Your task to perform on an android device: turn on improve location accuracy Image 0: 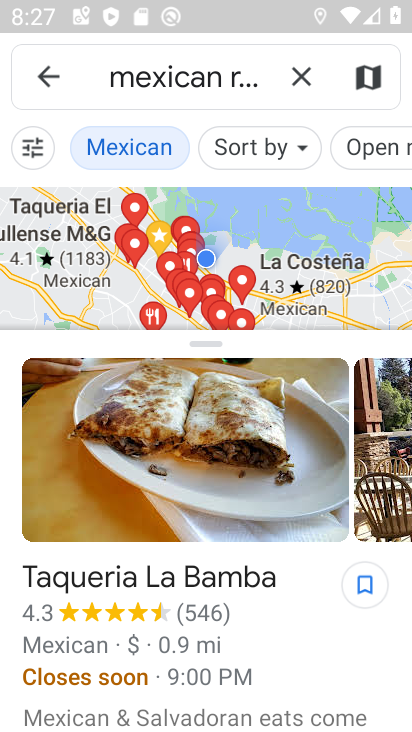
Step 0: press home button
Your task to perform on an android device: turn on improve location accuracy Image 1: 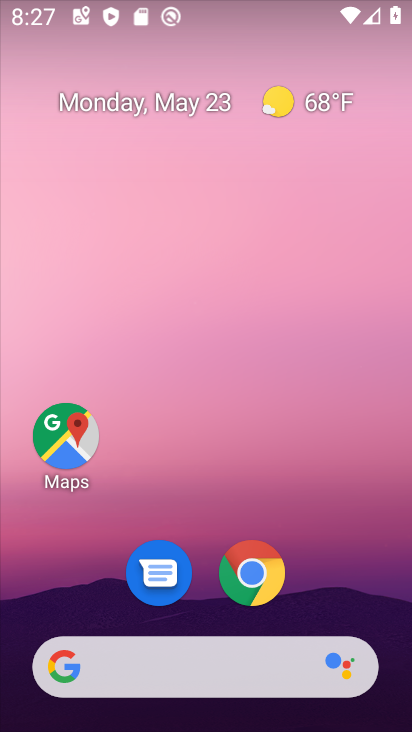
Step 1: drag from (199, 641) to (239, 195)
Your task to perform on an android device: turn on improve location accuracy Image 2: 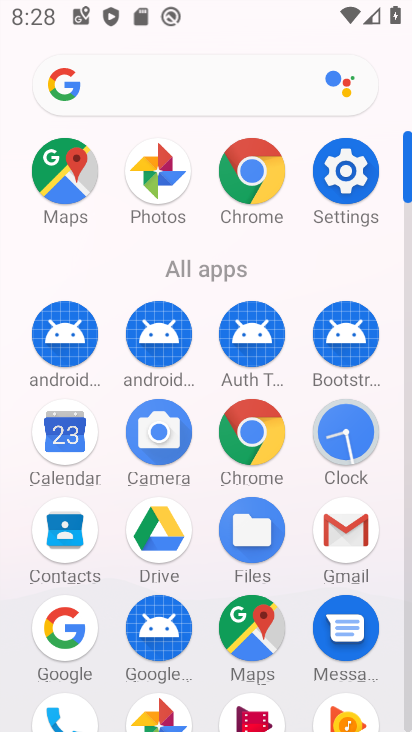
Step 2: click (347, 181)
Your task to perform on an android device: turn on improve location accuracy Image 3: 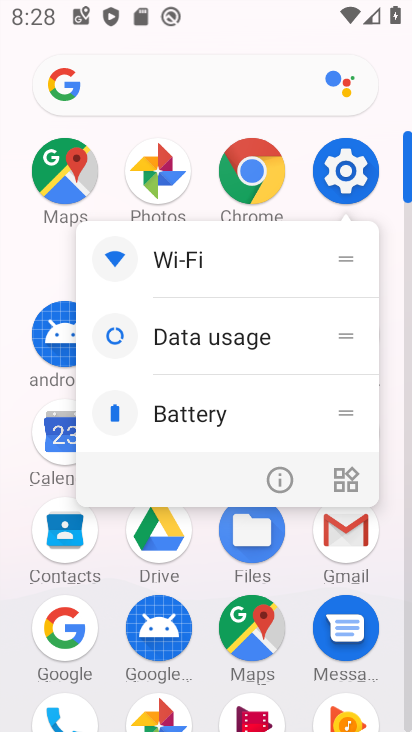
Step 3: click (357, 167)
Your task to perform on an android device: turn on improve location accuracy Image 4: 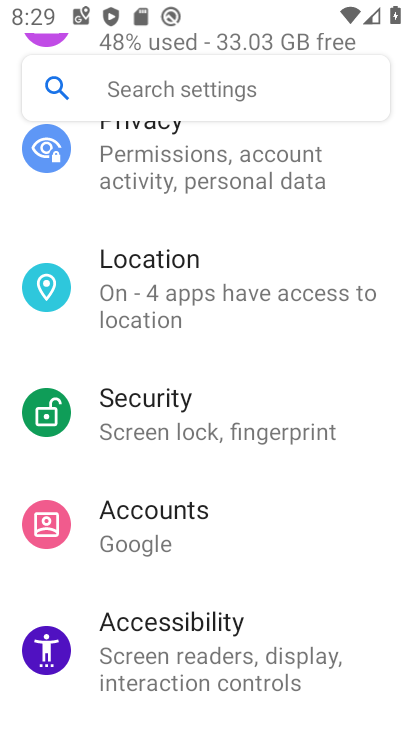
Step 4: click (195, 288)
Your task to perform on an android device: turn on improve location accuracy Image 5: 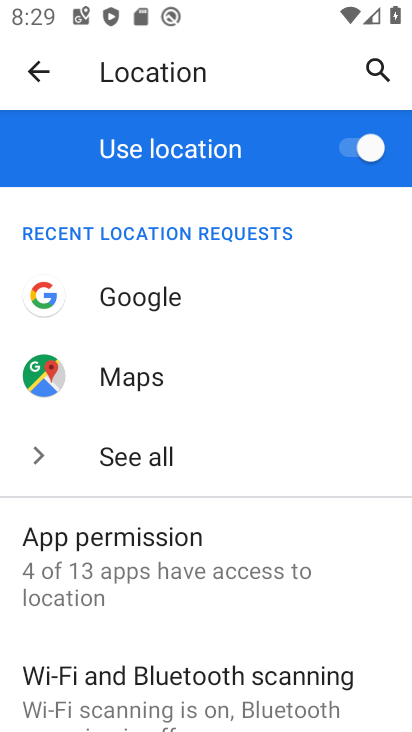
Step 5: drag from (187, 573) to (222, 208)
Your task to perform on an android device: turn on improve location accuracy Image 6: 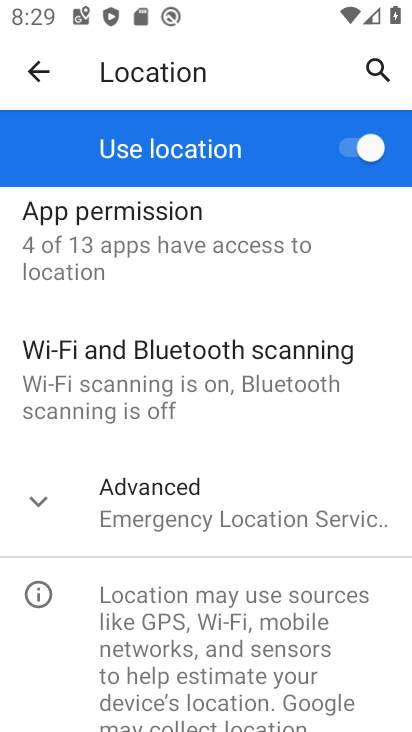
Step 6: click (198, 504)
Your task to perform on an android device: turn on improve location accuracy Image 7: 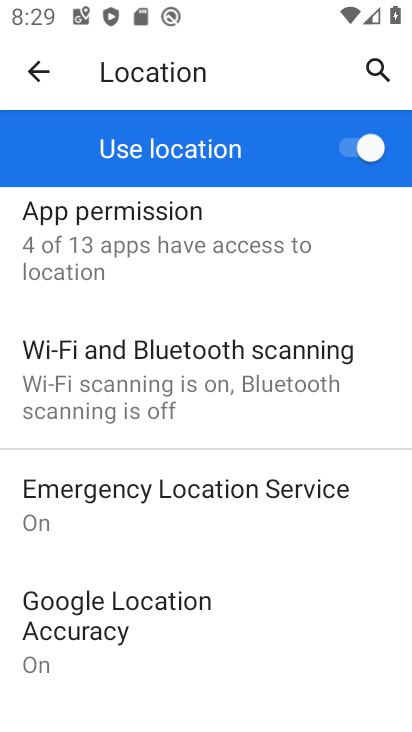
Step 7: drag from (185, 607) to (217, 333)
Your task to perform on an android device: turn on improve location accuracy Image 8: 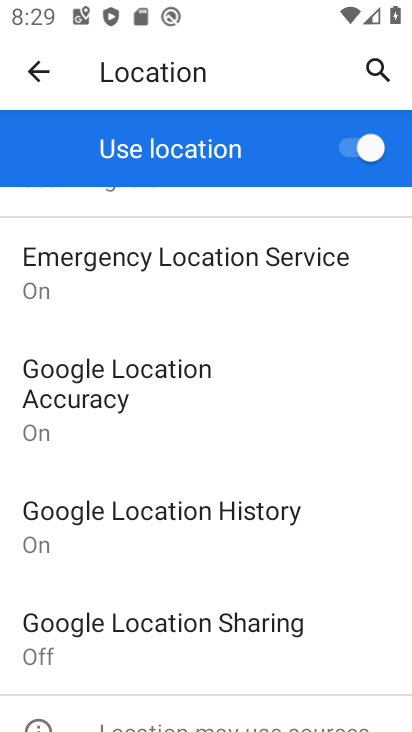
Step 8: click (105, 372)
Your task to perform on an android device: turn on improve location accuracy Image 9: 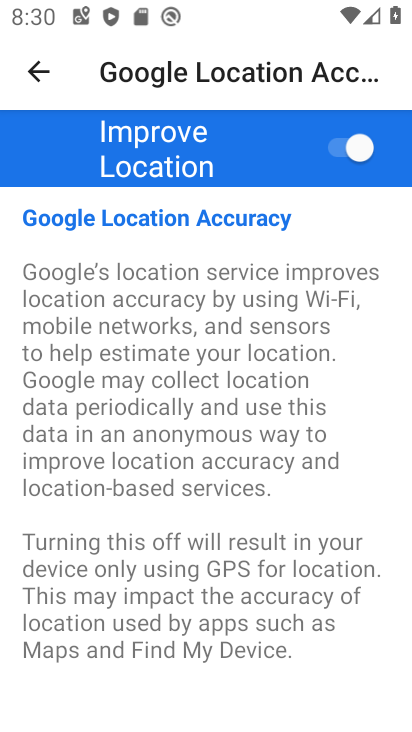
Step 9: task complete